Your task to perform on an android device: toggle show notifications on the lock screen Image 0: 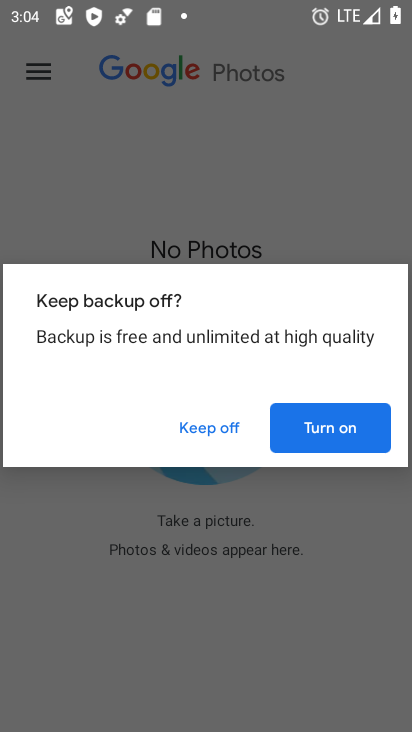
Step 0: press home button
Your task to perform on an android device: toggle show notifications on the lock screen Image 1: 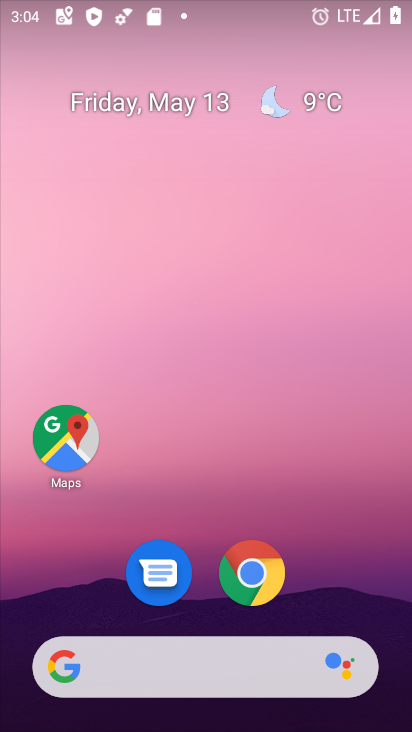
Step 1: drag from (355, 548) to (245, 121)
Your task to perform on an android device: toggle show notifications on the lock screen Image 2: 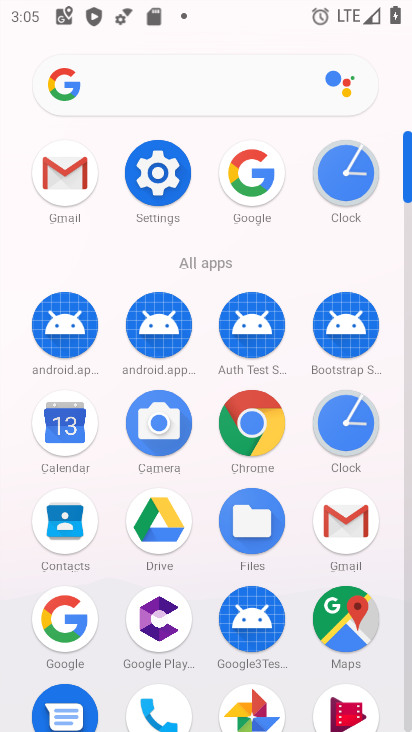
Step 2: click (158, 175)
Your task to perform on an android device: toggle show notifications on the lock screen Image 3: 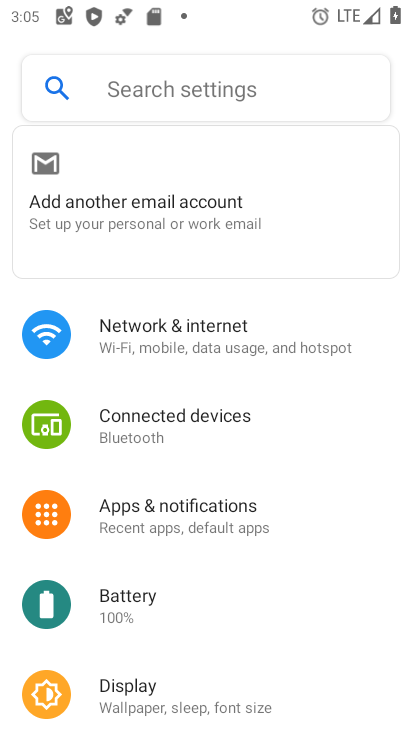
Step 3: drag from (150, 549) to (200, 455)
Your task to perform on an android device: toggle show notifications on the lock screen Image 4: 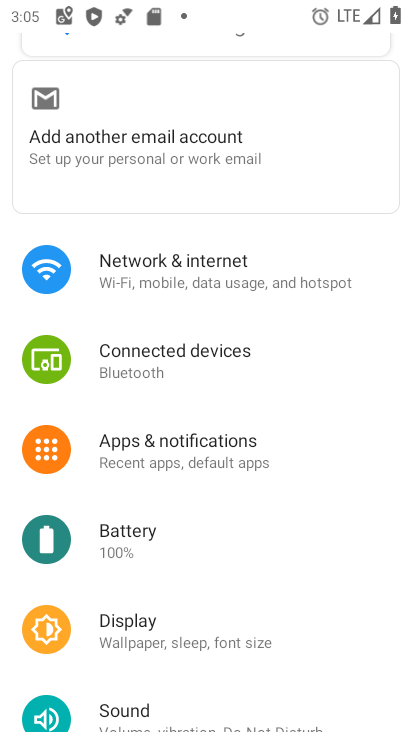
Step 4: drag from (184, 517) to (201, 416)
Your task to perform on an android device: toggle show notifications on the lock screen Image 5: 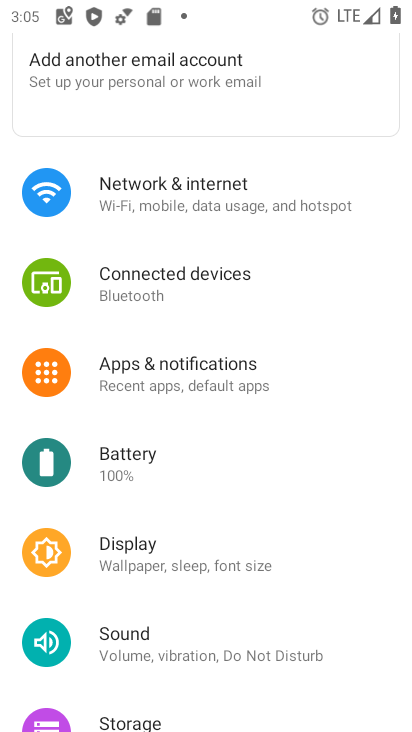
Step 5: drag from (182, 575) to (225, 475)
Your task to perform on an android device: toggle show notifications on the lock screen Image 6: 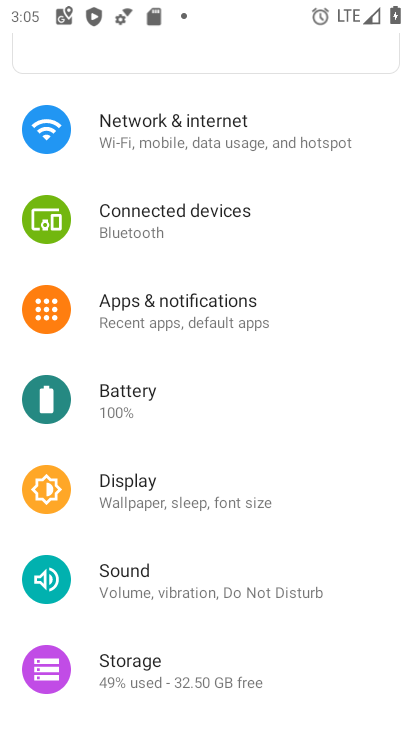
Step 6: click (170, 311)
Your task to perform on an android device: toggle show notifications on the lock screen Image 7: 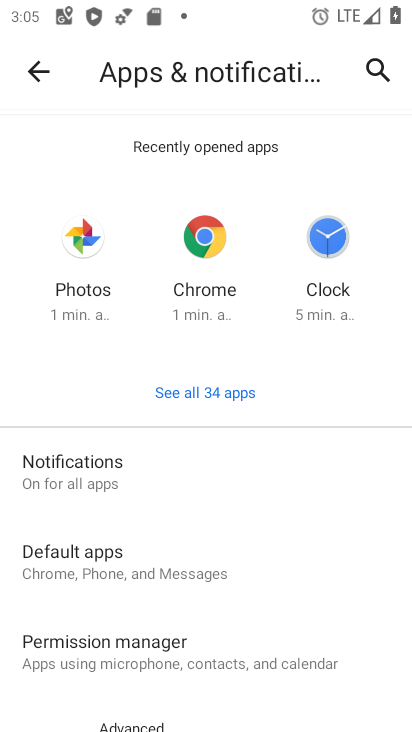
Step 7: click (77, 470)
Your task to perform on an android device: toggle show notifications on the lock screen Image 8: 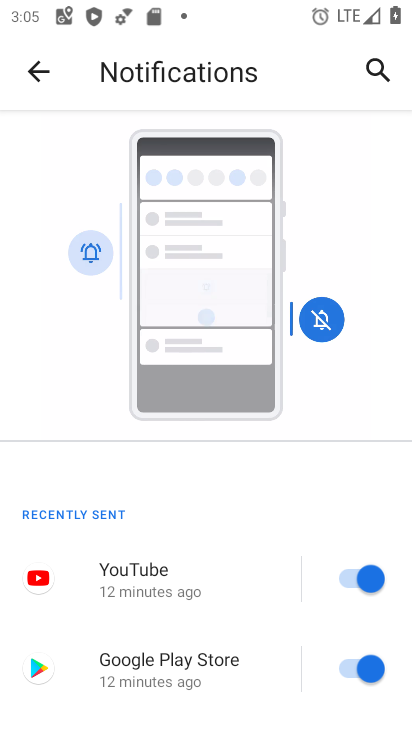
Step 8: drag from (178, 619) to (209, 498)
Your task to perform on an android device: toggle show notifications on the lock screen Image 9: 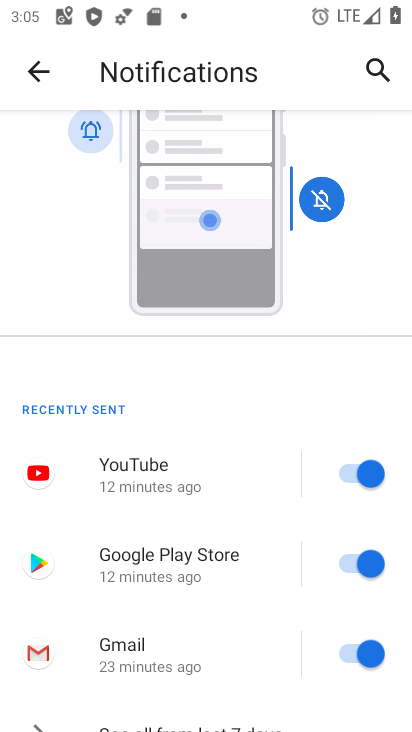
Step 9: drag from (183, 593) to (219, 464)
Your task to perform on an android device: toggle show notifications on the lock screen Image 10: 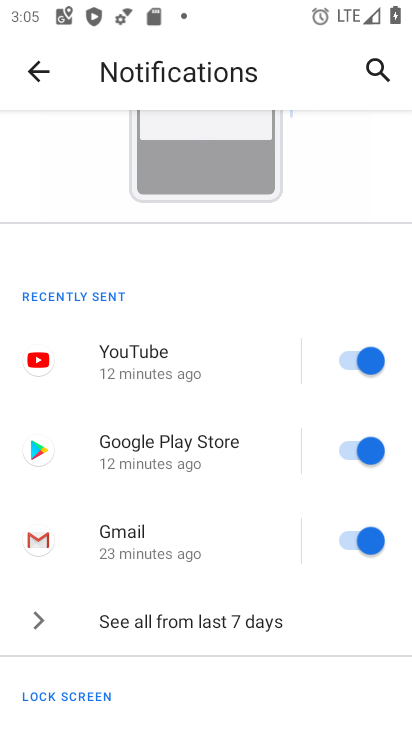
Step 10: drag from (201, 576) to (229, 444)
Your task to perform on an android device: toggle show notifications on the lock screen Image 11: 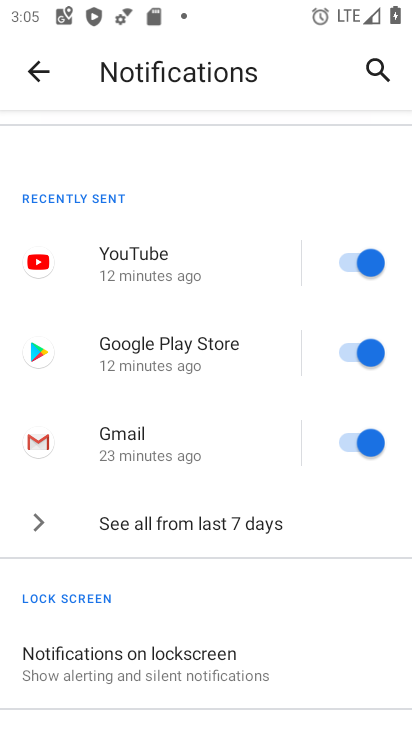
Step 11: click (164, 655)
Your task to perform on an android device: toggle show notifications on the lock screen Image 12: 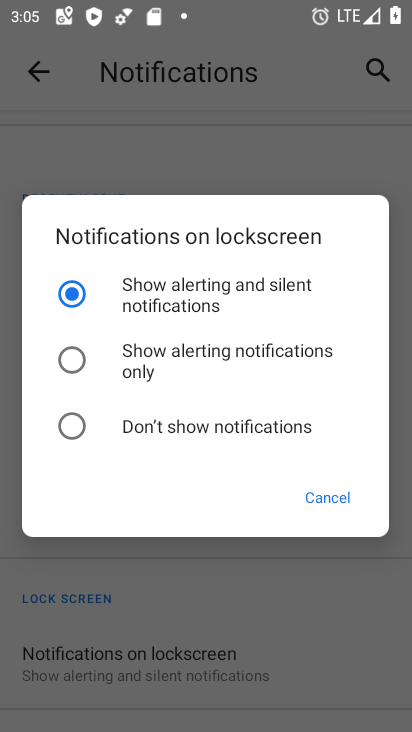
Step 12: click (77, 429)
Your task to perform on an android device: toggle show notifications on the lock screen Image 13: 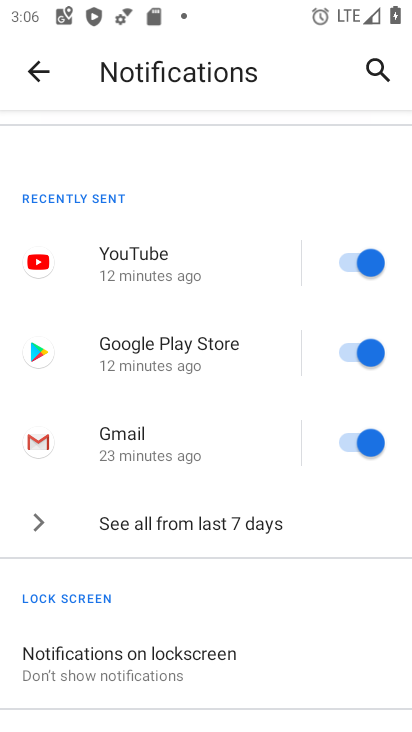
Step 13: task complete